Your task to perform on an android device: Search for a runner rug on Crate & Barrel Image 0: 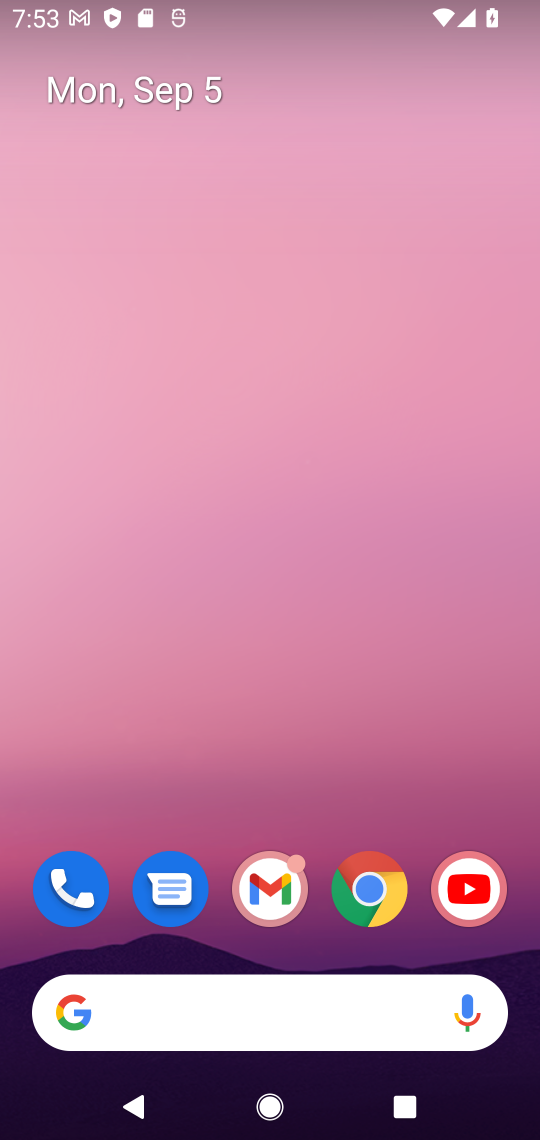
Step 0: click (215, 1004)
Your task to perform on an android device: Search for a runner rug on Crate & Barrel Image 1: 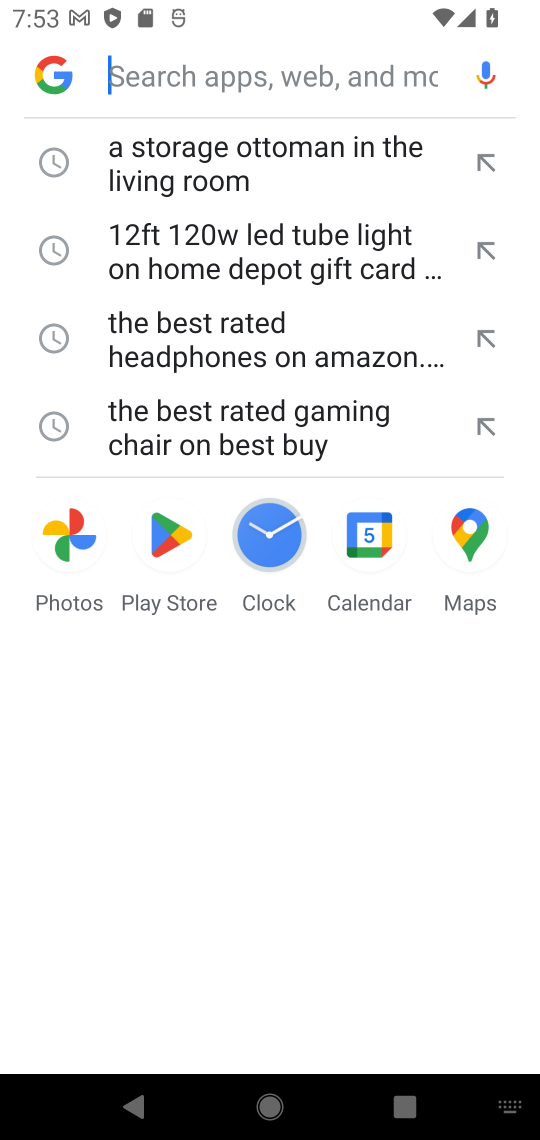
Step 1: type "for a runner rug on Crate & Barrel"
Your task to perform on an android device: Search for a runner rug on Crate & Barrel Image 2: 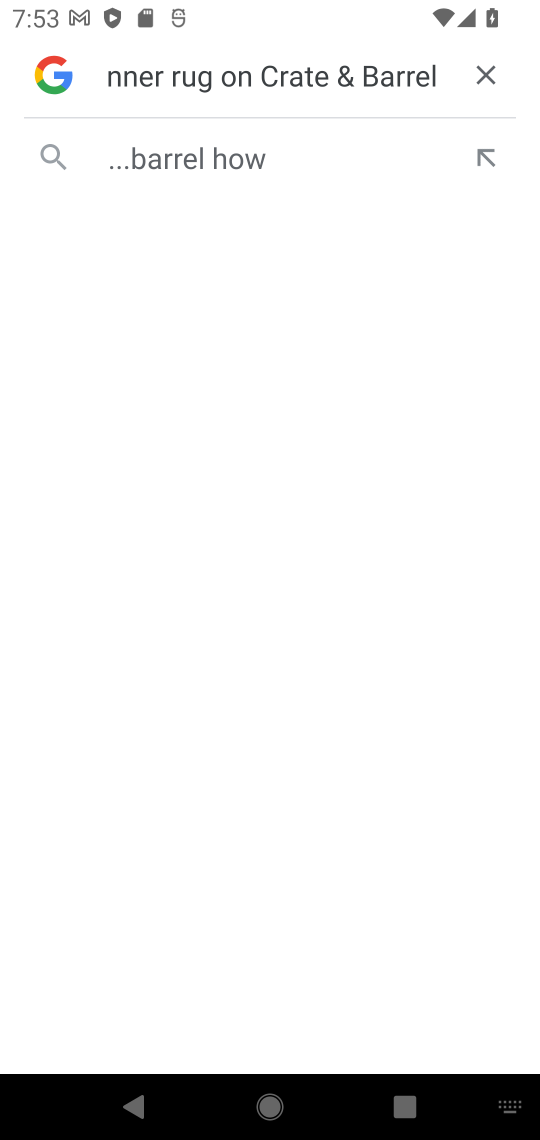
Step 2: click (208, 163)
Your task to perform on an android device: Search for a runner rug on Crate & Barrel Image 3: 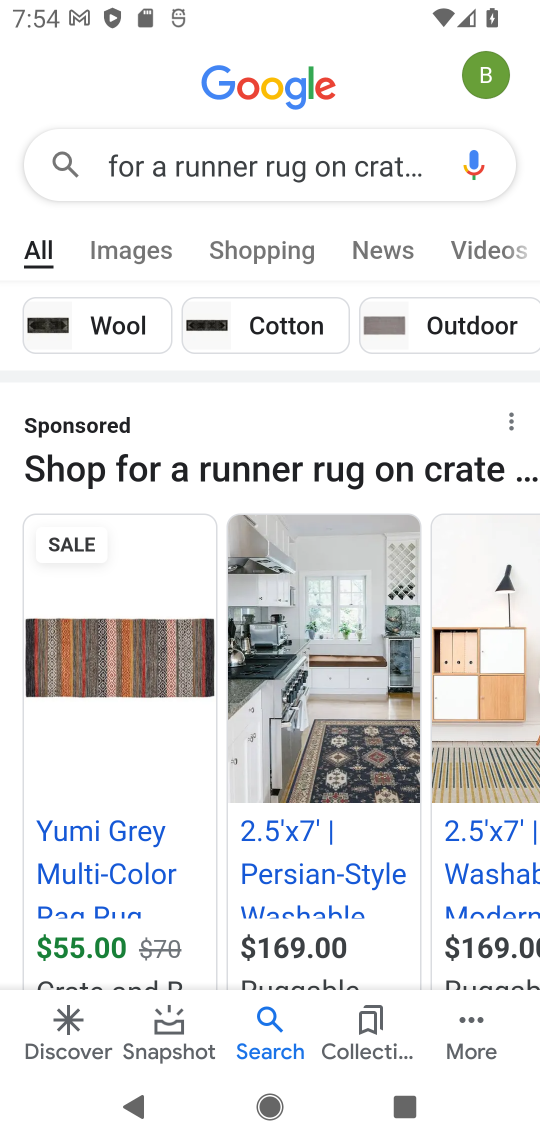
Step 3: click (306, 536)
Your task to perform on an android device: Search for a runner rug on Crate & Barrel Image 4: 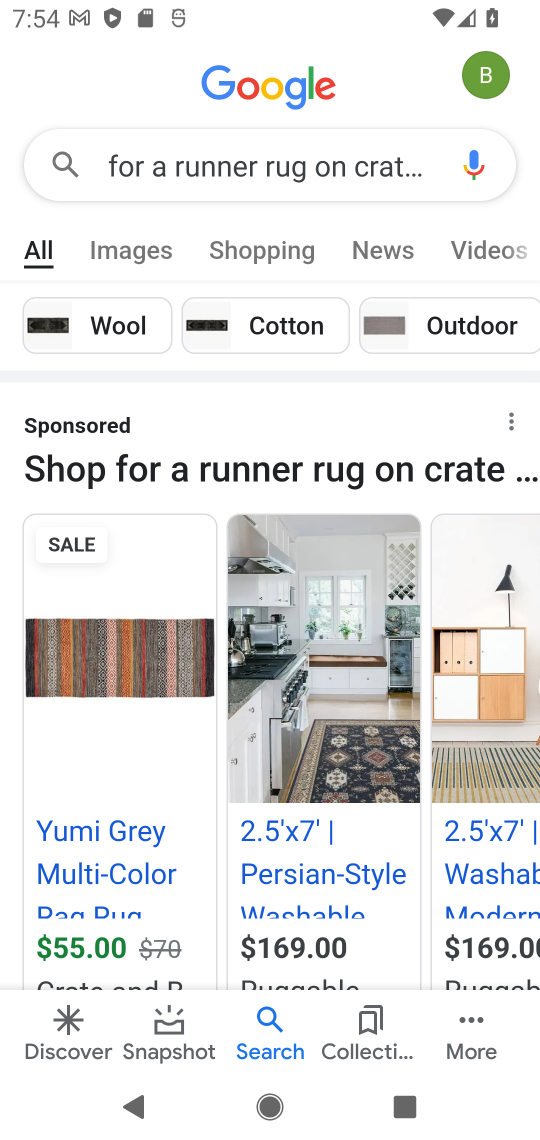
Step 4: task complete